Your task to perform on an android device: Open settings Image 0: 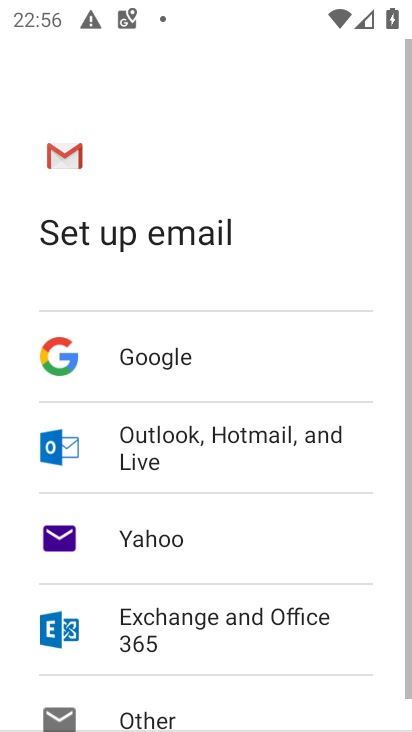
Step 0: press home button
Your task to perform on an android device: Open settings Image 1: 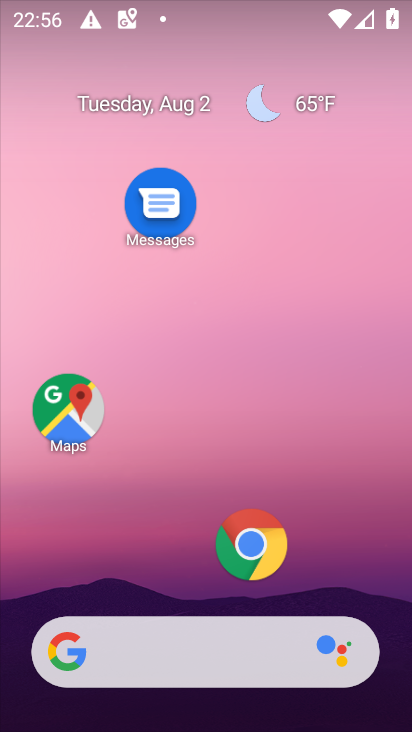
Step 1: task complete